Your task to perform on an android device: Show me the alarms in the clock app Image 0: 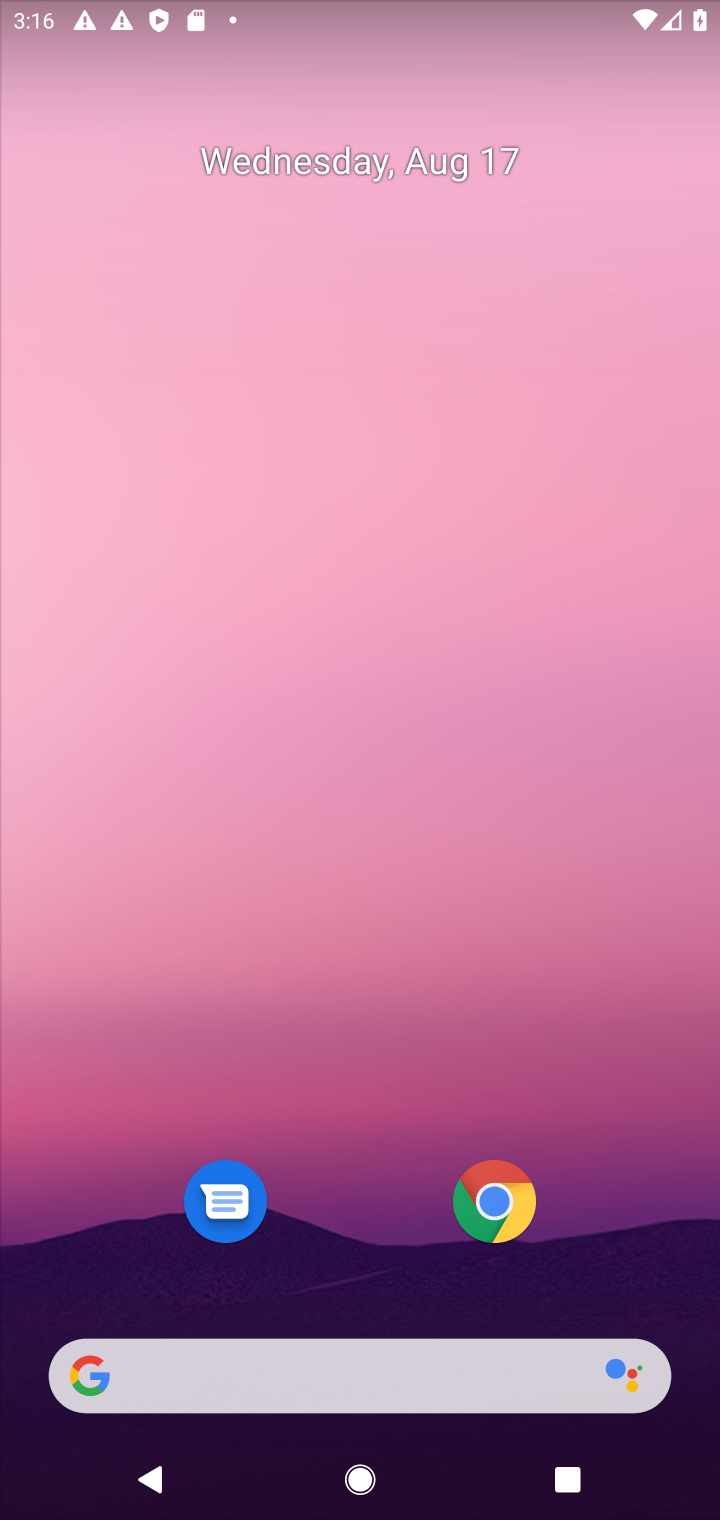
Step 0: drag from (296, 730) to (332, 79)
Your task to perform on an android device: Show me the alarms in the clock app Image 1: 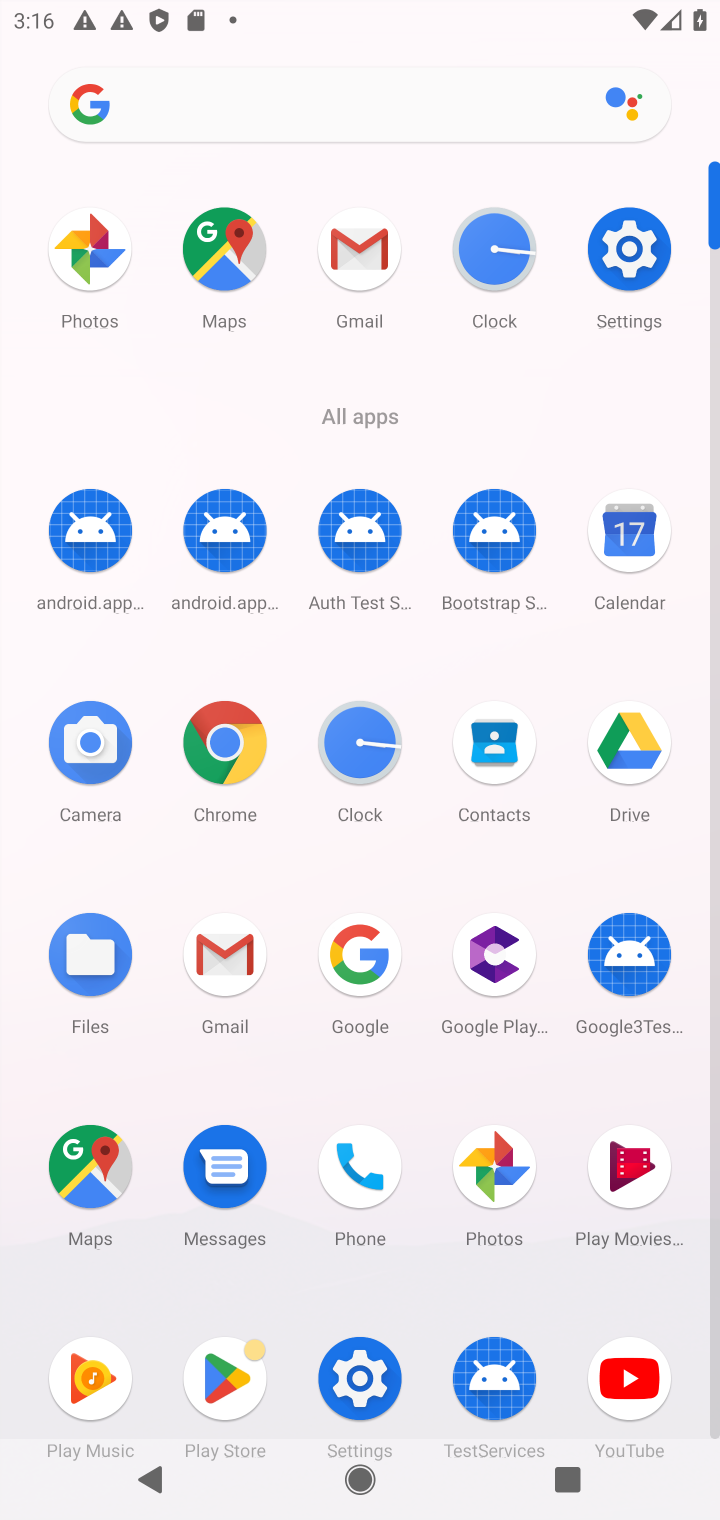
Step 1: click (389, 736)
Your task to perform on an android device: Show me the alarms in the clock app Image 2: 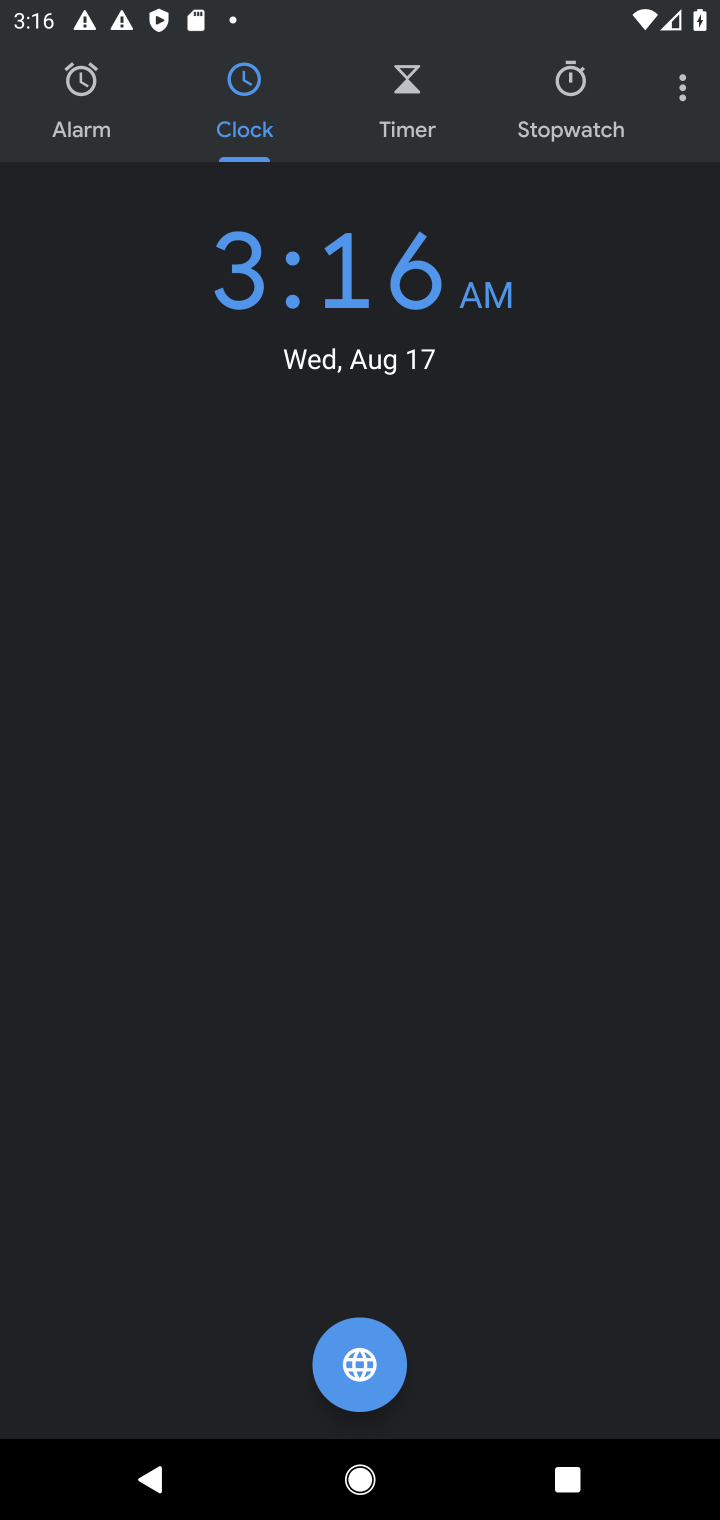
Step 2: click (85, 109)
Your task to perform on an android device: Show me the alarms in the clock app Image 3: 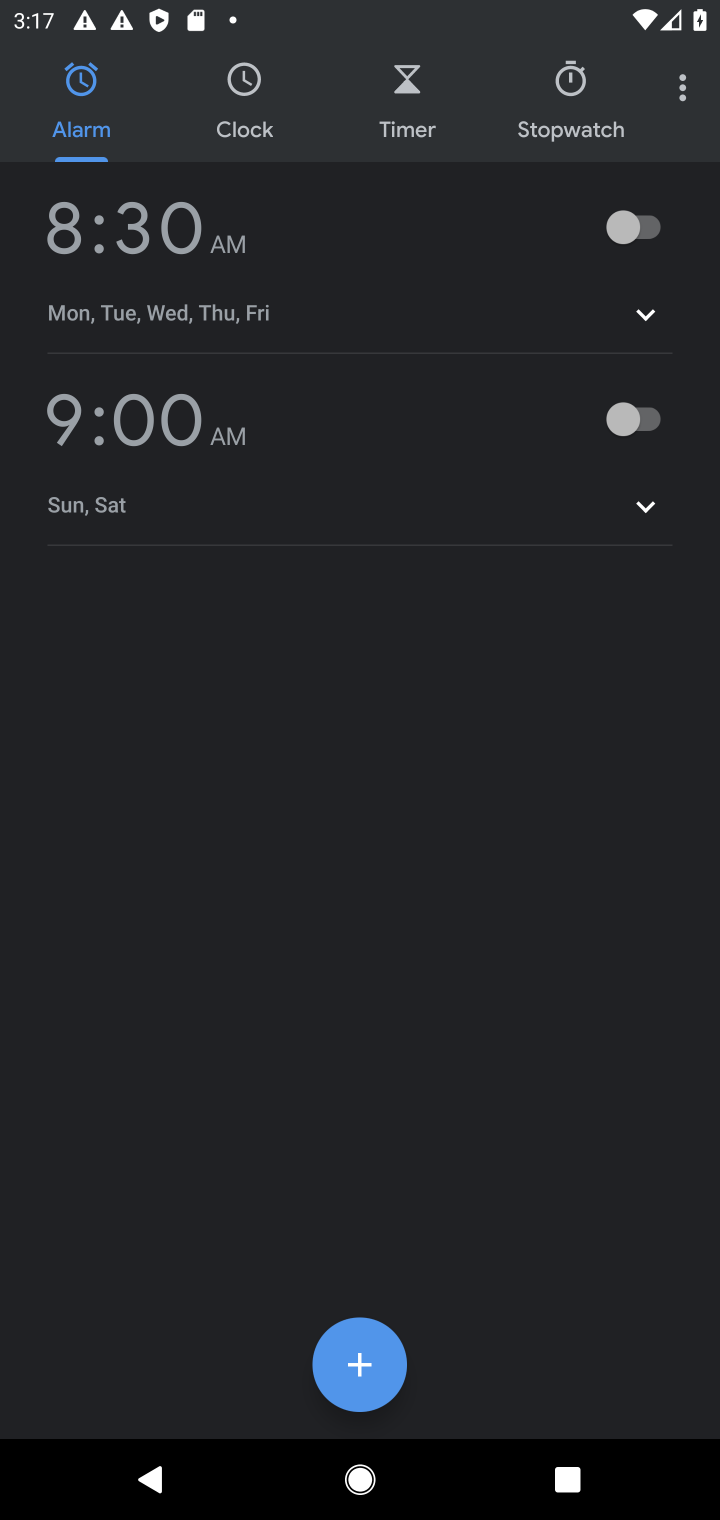
Step 3: task complete